Your task to perform on an android device: Search for vegetarian restaurants on Maps Image 0: 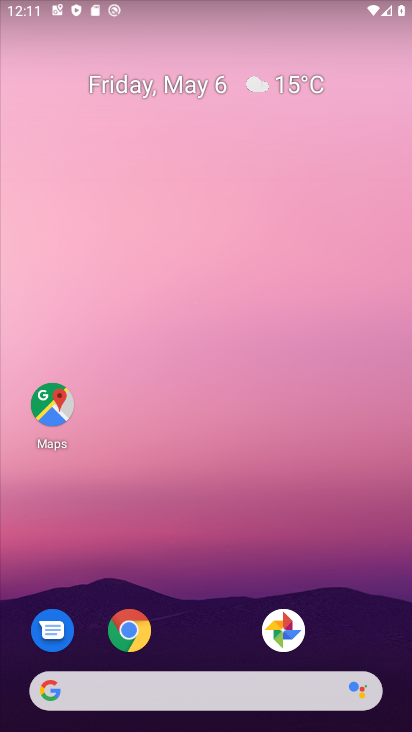
Step 0: drag from (290, 730) to (388, 692)
Your task to perform on an android device: Search for vegetarian restaurants on Maps Image 1: 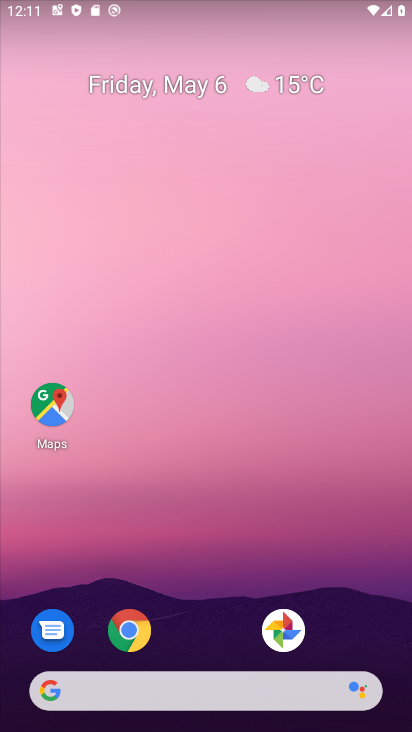
Step 1: drag from (355, 593) to (60, 728)
Your task to perform on an android device: Search for vegetarian restaurants on Maps Image 2: 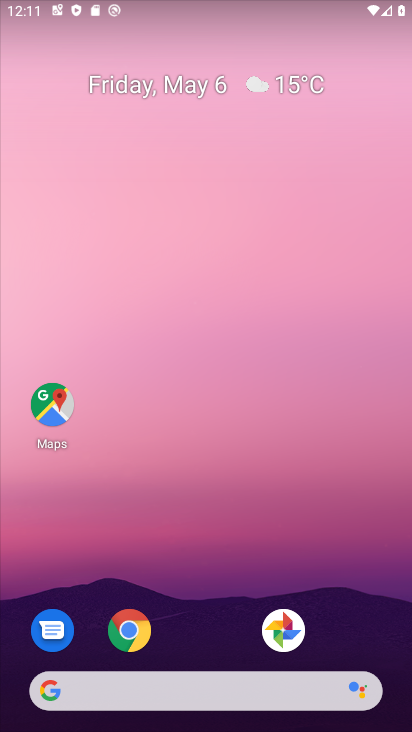
Step 2: click (64, 405)
Your task to perform on an android device: Search for vegetarian restaurants on Maps Image 3: 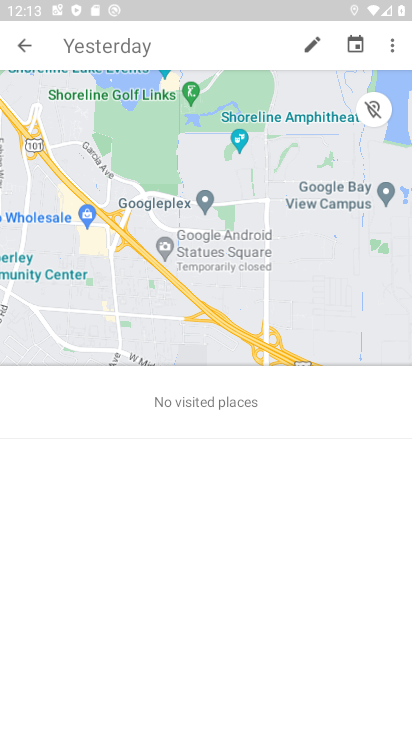
Step 3: click (12, 44)
Your task to perform on an android device: Search for vegetarian restaurants on Maps Image 4: 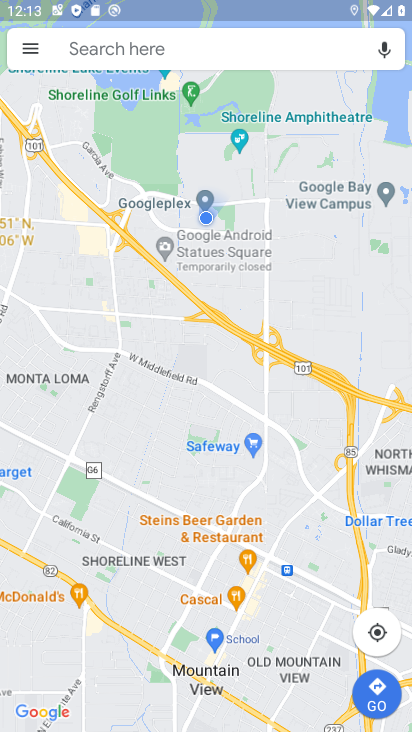
Step 4: click (113, 30)
Your task to perform on an android device: Search for vegetarian restaurants on Maps Image 5: 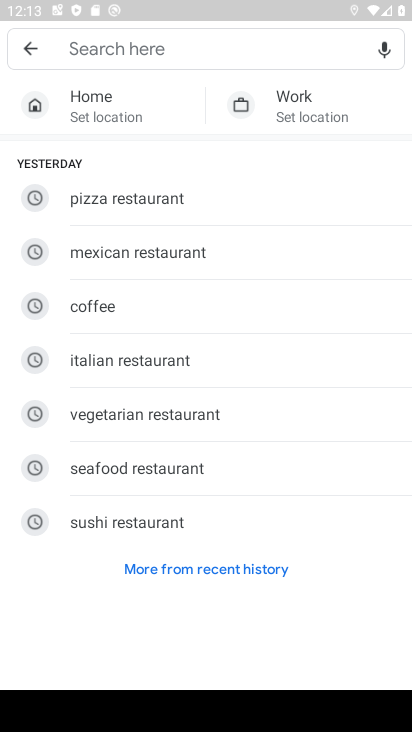
Step 5: type "vegetarian restaurants "
Your task to perform on an android device: Search for vegetarian restaurants on Maps Image 6: 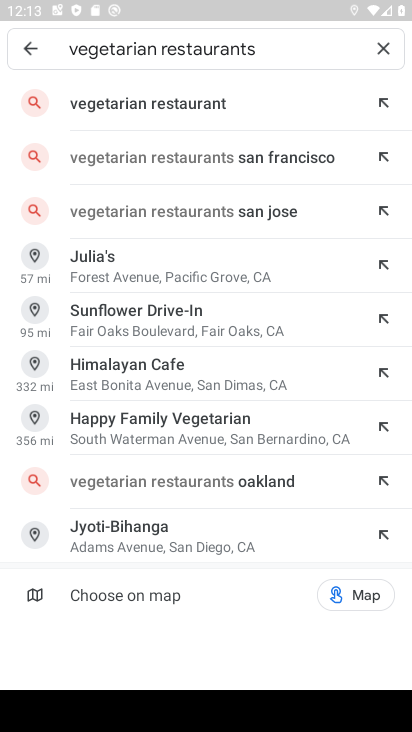
Step 6: click (176, 109)
Your task to perform on an android device: Search for vegetarian restaurants on Maps Image 7: 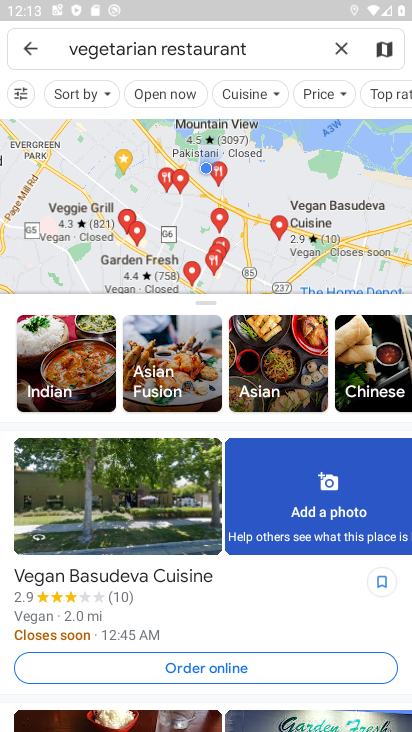
Step 7: task complete